Your task to perform on an android device: Go to network settings Image 0: 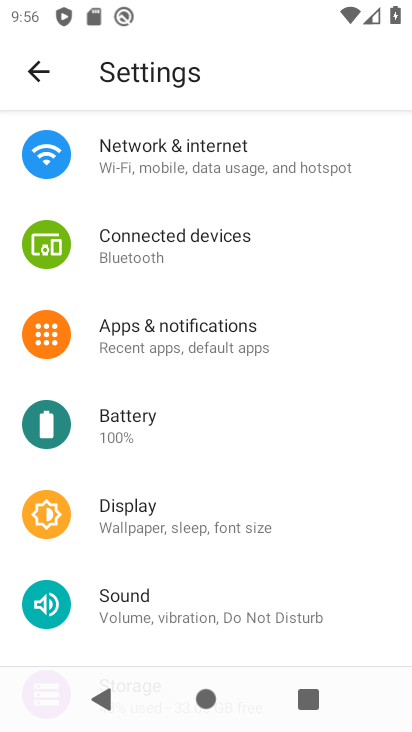
Step 0: click (152, 175)
Your task to perform on an android device: Go to network settings Image 1: 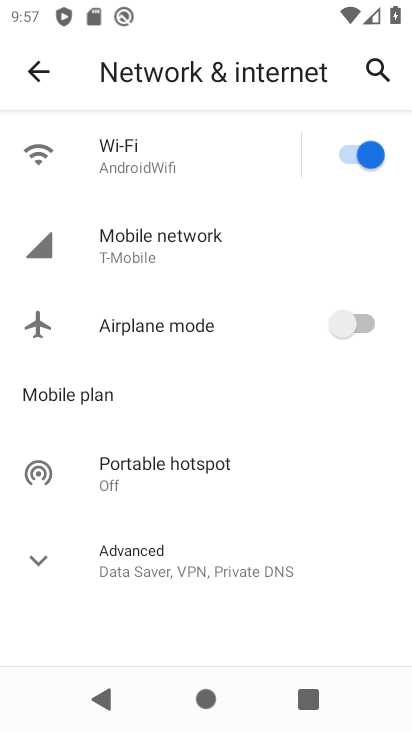
Step 1: task complete